Your task to perform on an android device: Empty the shopping cart on costco. Image 0: 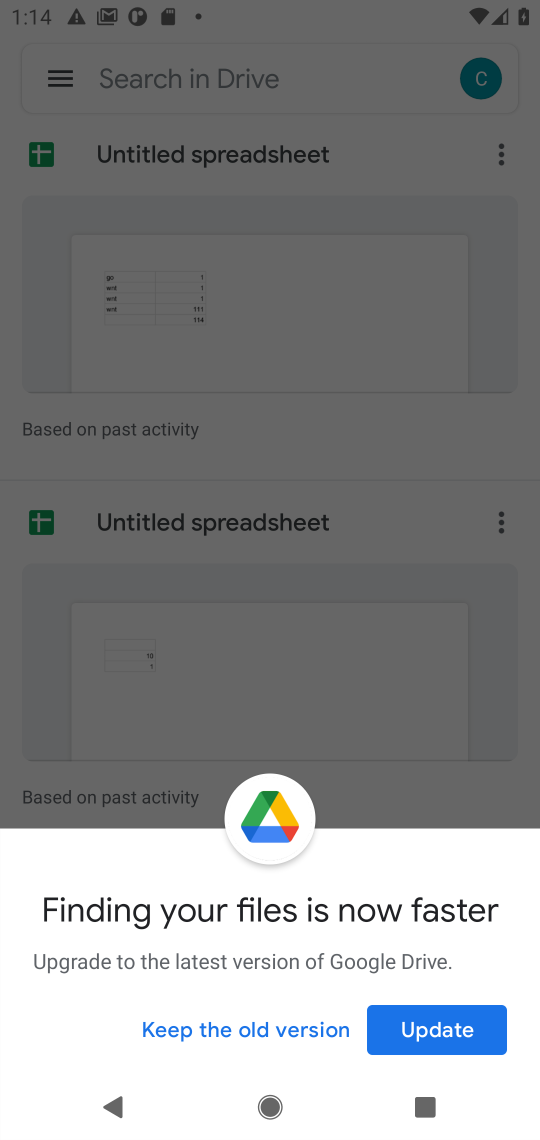
Step 0: press home button
Your task to perform on an android device: Empty the shopping cart on costco. Image 1: 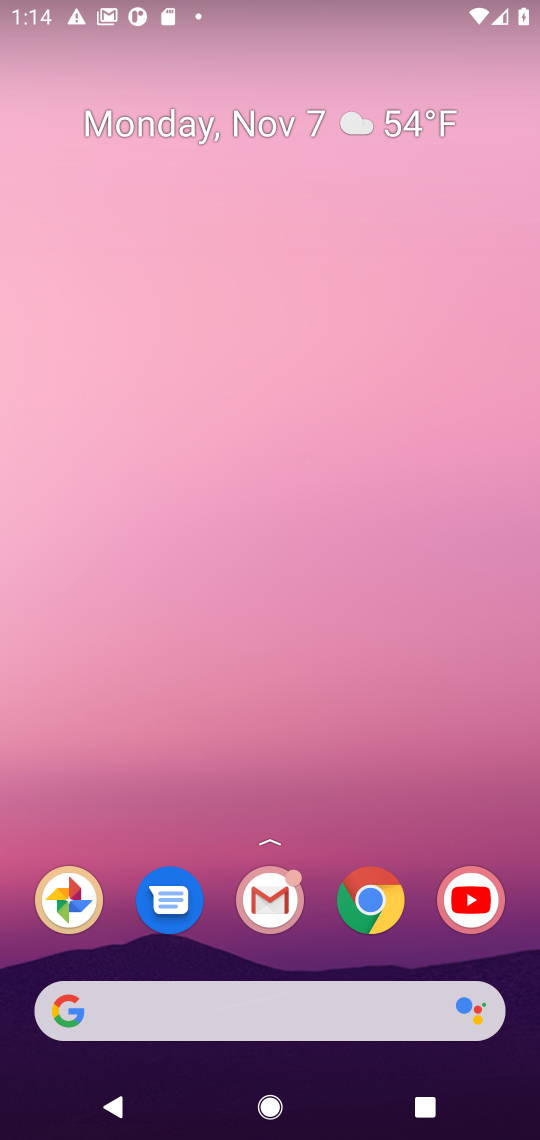
Step 1: click (156, 1013)
Your task to perform on an android device: Empty the shopping cart on costco. Image 2: 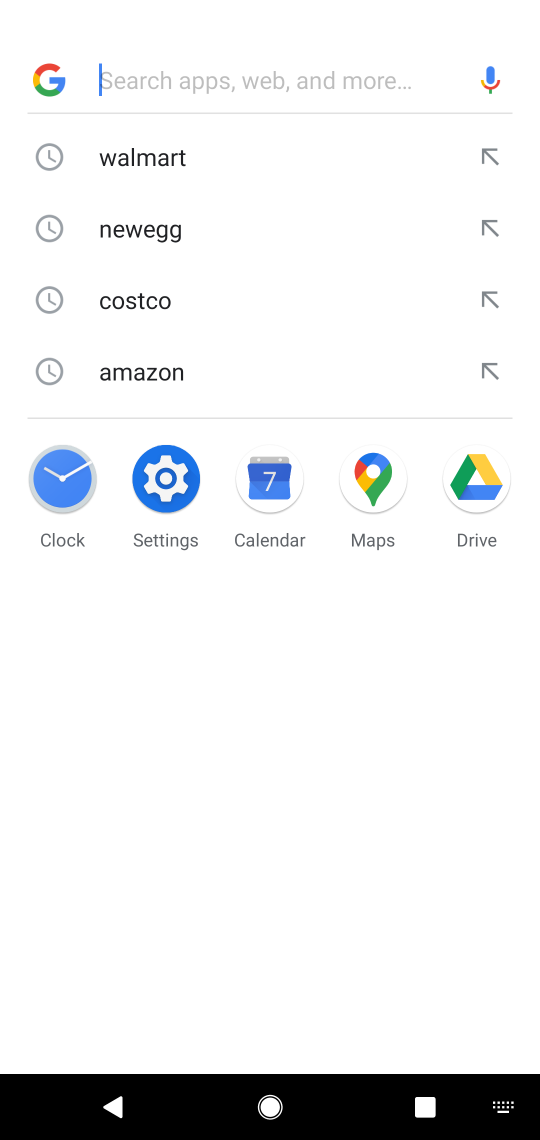
Step 2: click (203, 289)
Your task to perform on an android device: Empty the shopping cart on costco. Image 3: 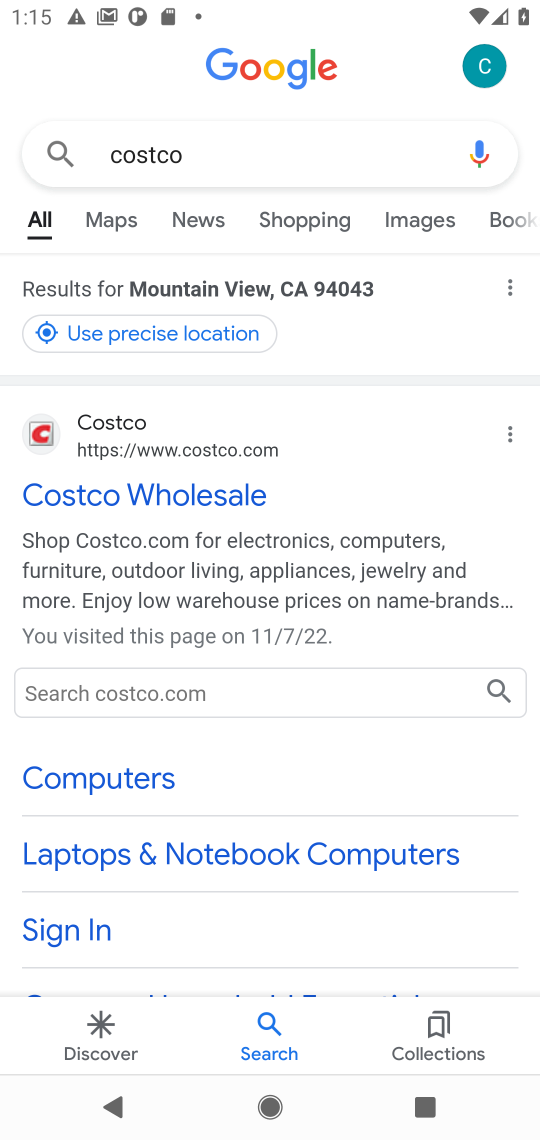
Step 3: click (243, 475)
Your task to perform on an android device: Empty the shopping cart on costco. Image 4: 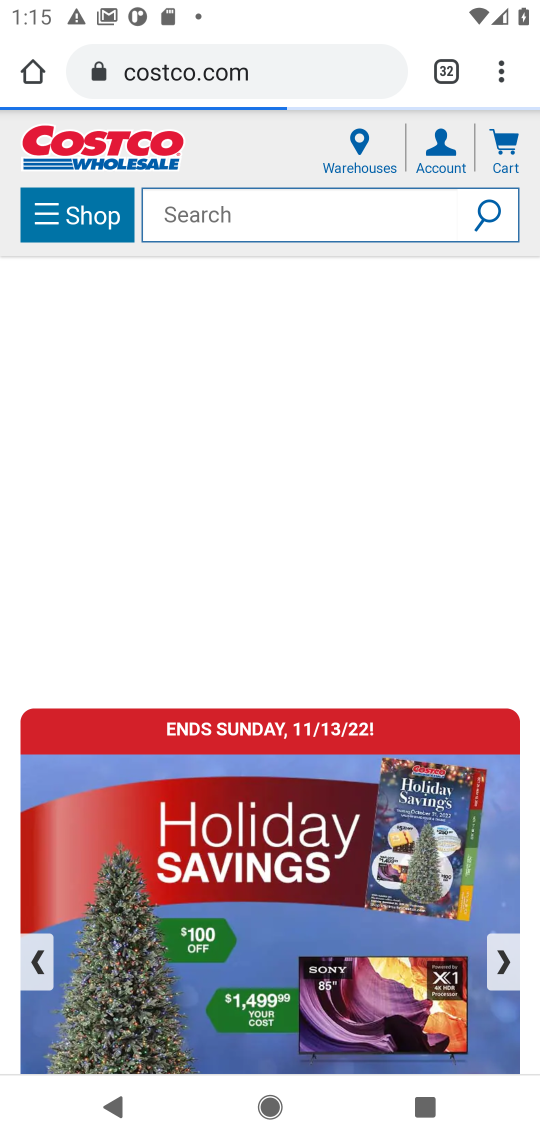
Step 4: task complete